Your task to perform on an android device: change the clock display to digital Image 0: 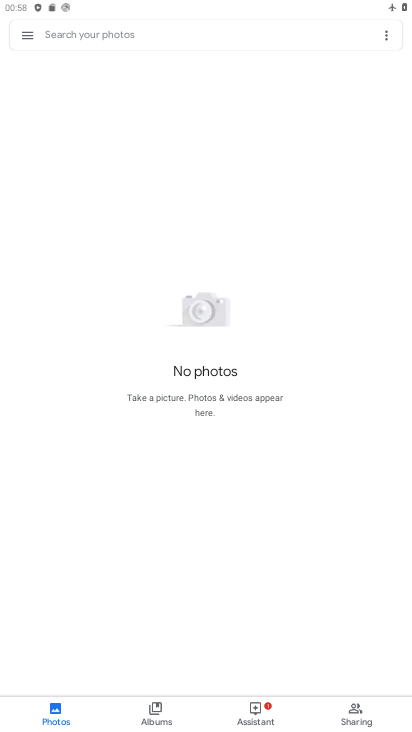
Step 0: press home button
Your task to perform on an android device: change the clock display to digital Image 1: 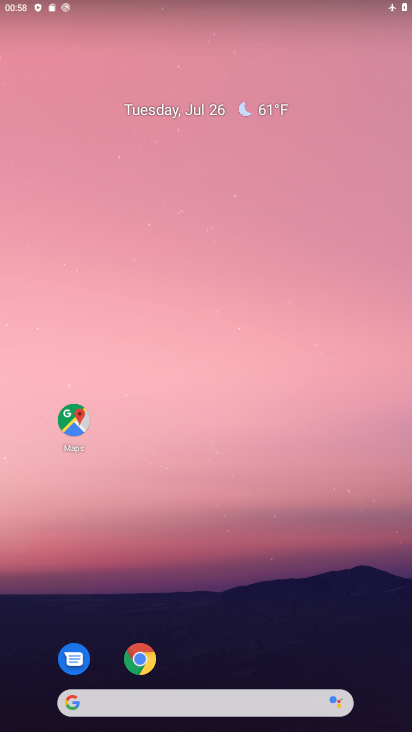
Step 1: drag from (287, 573) to (273, 98)
Your task to perform on an android device: change the clock display to digital Image 2: 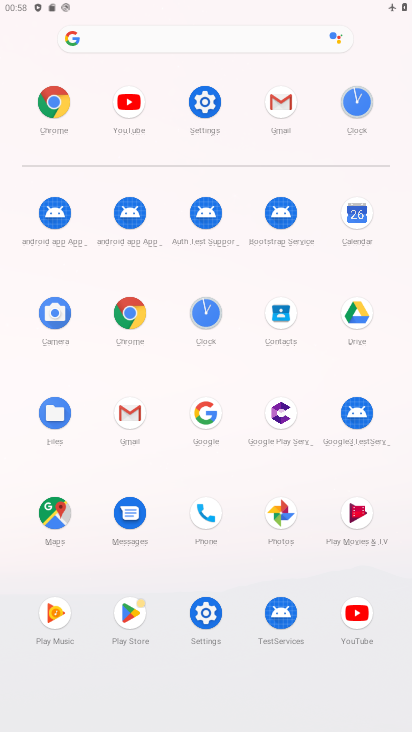
Step 2: click (212, 312)
Your task to perform on an android device: change the clock display to digital Image 3: 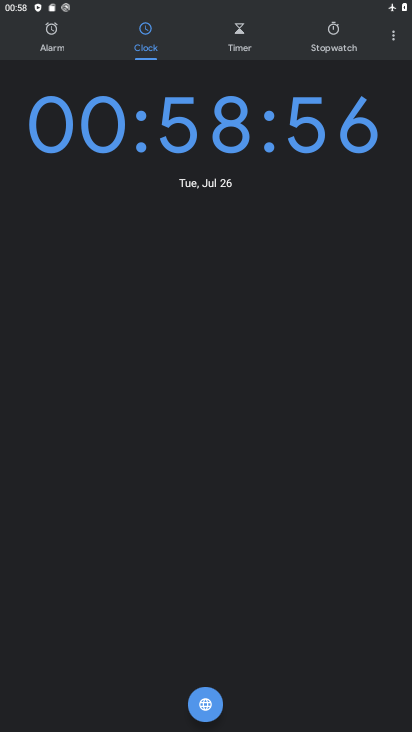
Step 3: click (394, 38)
Your task to perform on an android device: change the clock display to digital Image 4: 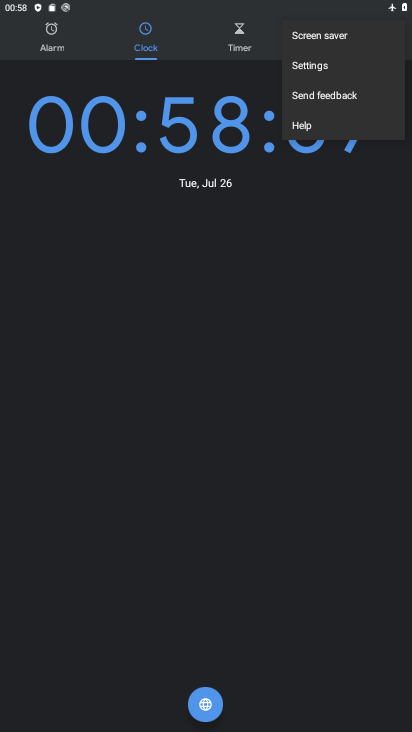
Step 4: click (311, 70)
Your task to perform on an android device: change the clock display to digital Image 5: 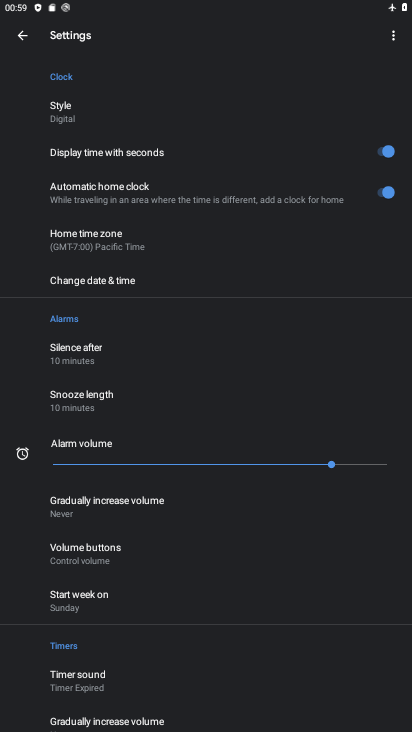
Step 5: task complete